Your task to perform on an android device: Open display settings Image 0: 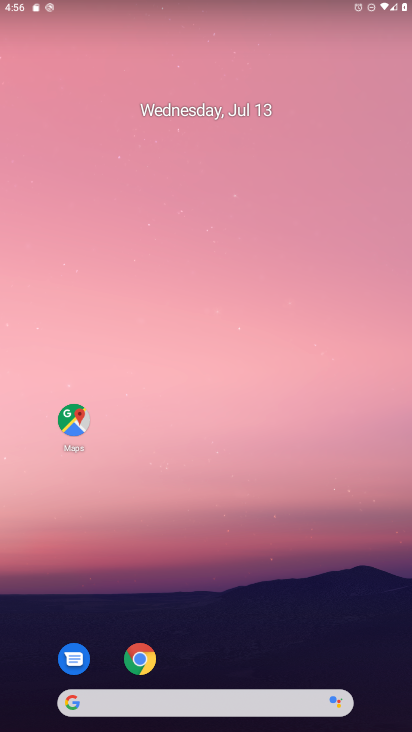
Step 0: drag from (301, 539) to (275, 101)
Your task to perform on an android device: Open display settings Image 1: 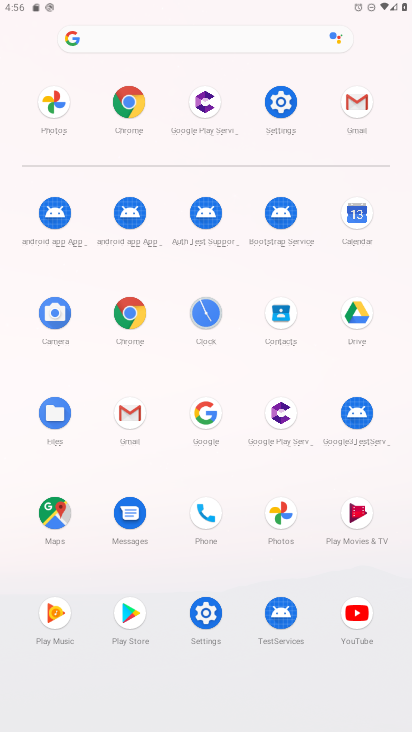
Step 1: click (290, 109)
Your task to perform on an android device: Open display settings Image 2: 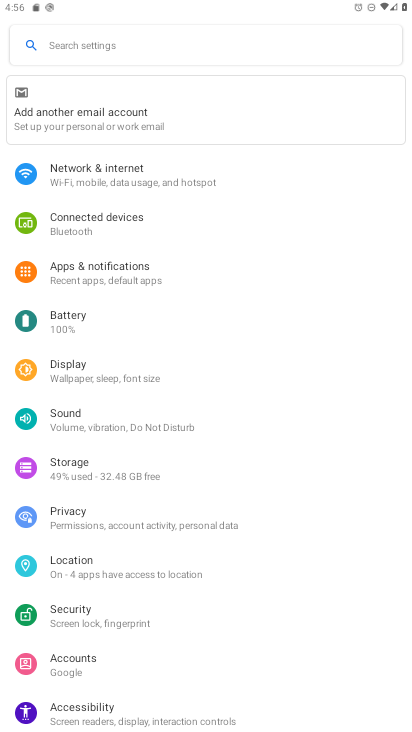
Step 2: click (141, 377)
Your task to perform on an android device: Open display settings Image 3: 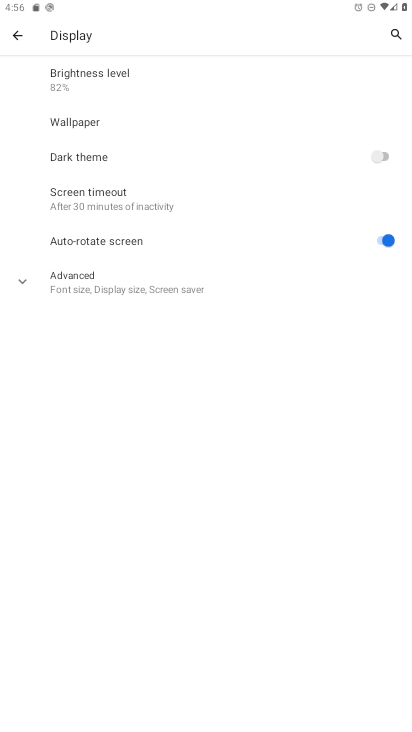
Step 3: task complete